Your task to perform on an android device: Go to Google maps Image 0: 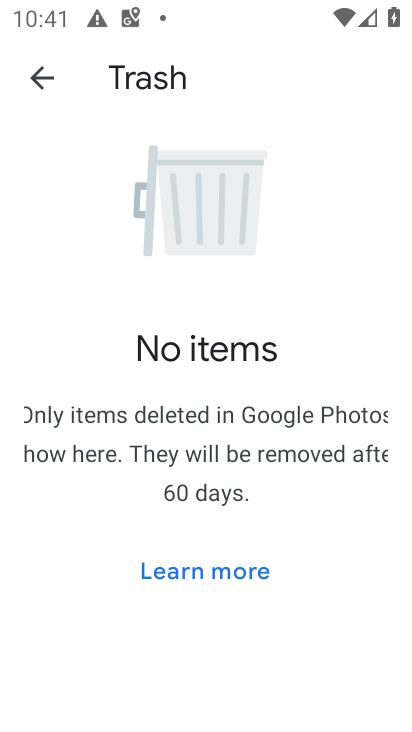
Step 0: press back button
Your task to perform on an android device: Go to Google maps Image 1: 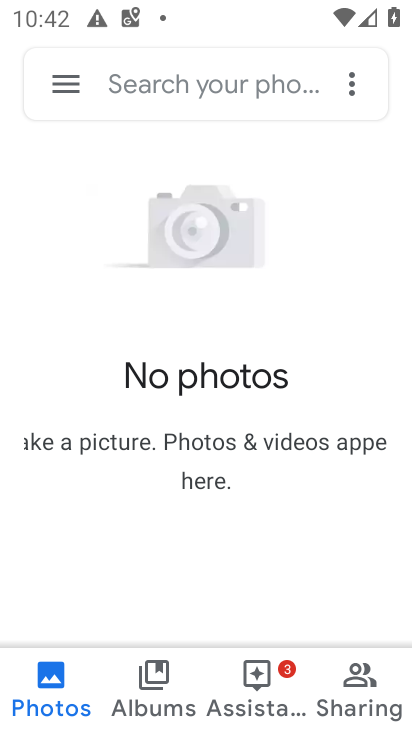
Step 1: press home button
Your task to perform on an android device: Go to Google maps Image 2: 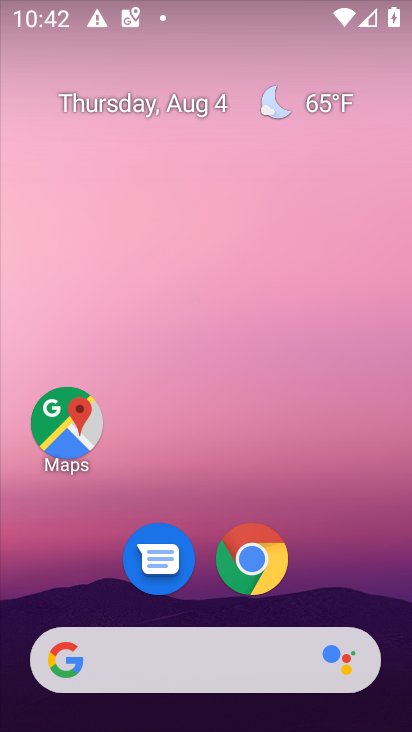
Step 2: click (43, 436)
Your task to perform on an android device: Go to Google maps Image 3: 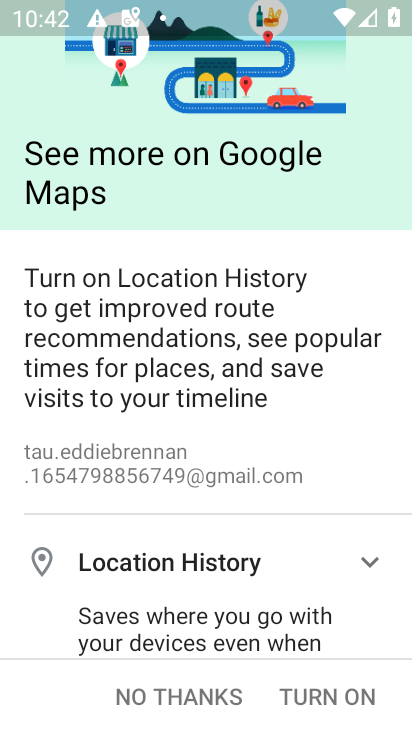
Step 3: task complete